Your task to perform on an android device: toggle sleep mode Image 0: 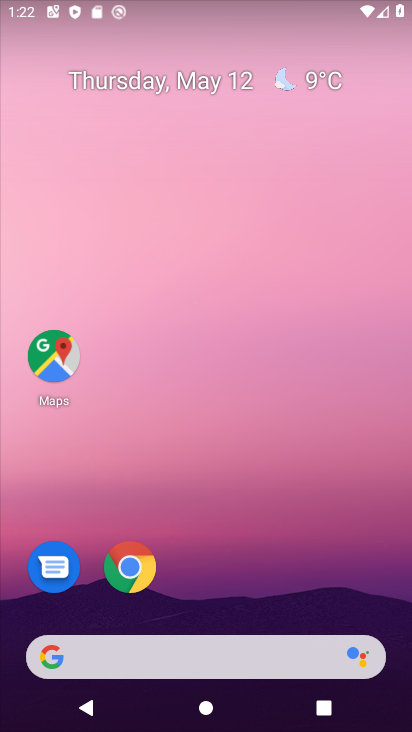
Step 0: press home button
Your task to perform on an android device: toggle sleep mode Image 1: 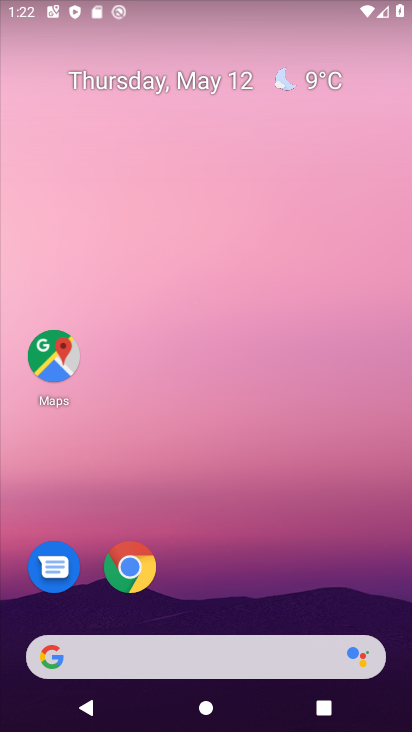
Step 1: drag from (207, 610) to (235, 42)
Your task to perform on an android device: toggle sleep mode Image 2: 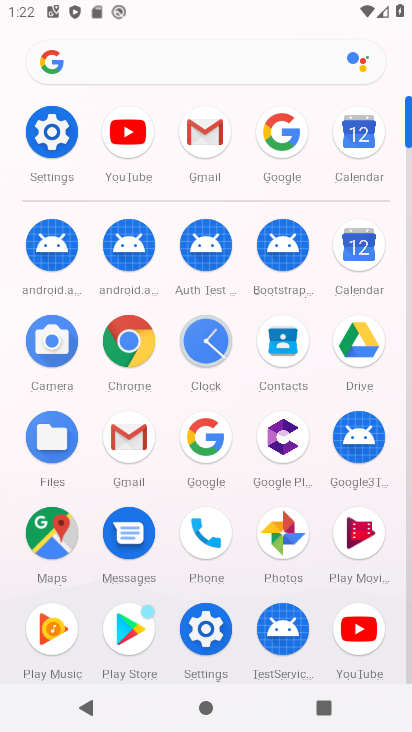
Step 2: click (52, 129)
Your task to perform on an android device: toggle sleep mode Image 3: 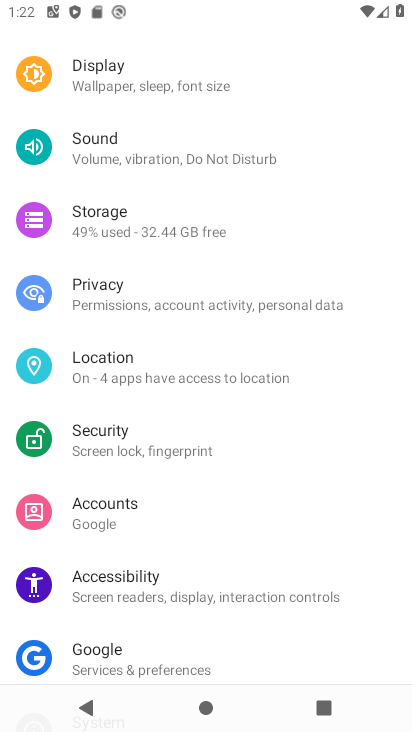
Step 3: click (129, 73)
Your task to perform on an android device: toggle sleep mode Image 4: 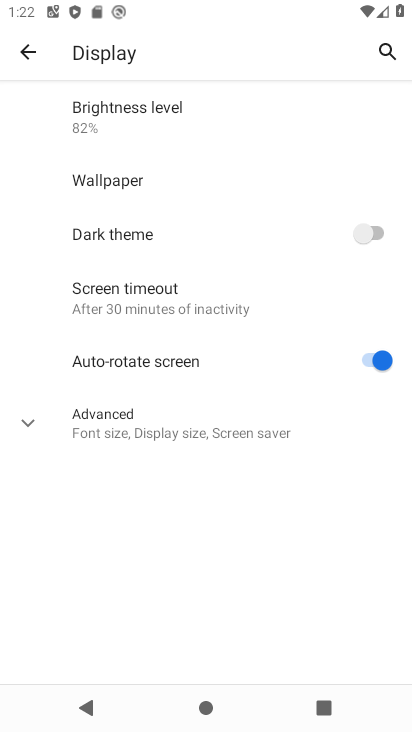
Step 4: click (22, 416)
Your task to perform on an android device: toggle sleep mode Image 5: 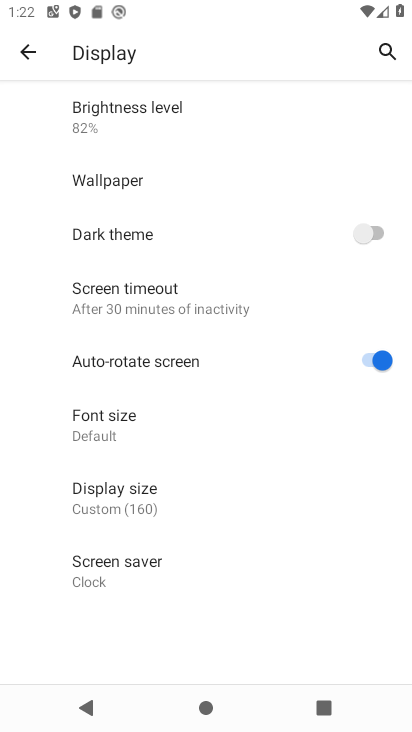
Step 5: task complete